Your task to perform on an android device: open a bookmark in the chrome app Image 0: 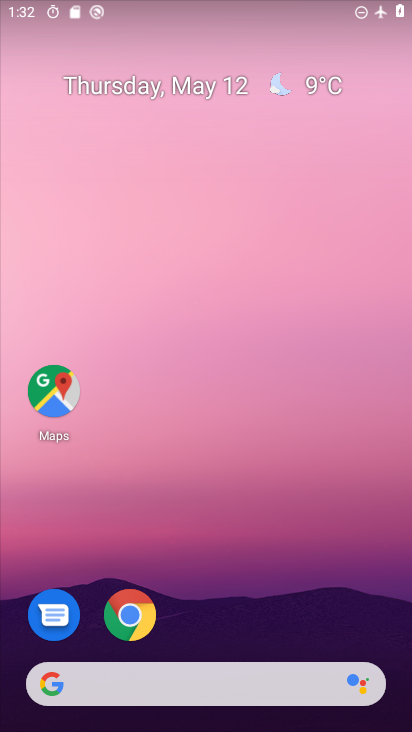
Step 0: click (138, 610)
Your task to perform on an android device: open a bookmark in the chrome app Image 1: 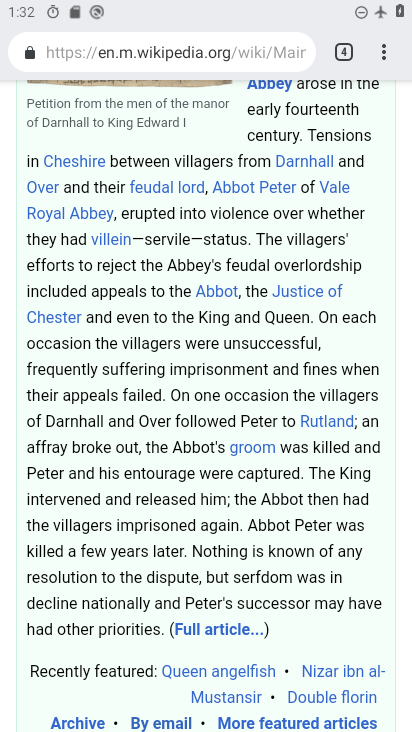
Step 1: drag from (376, 52) to (229, 200)
Your task to perform on an android device: open a bookmark in the chrome app Image 2: 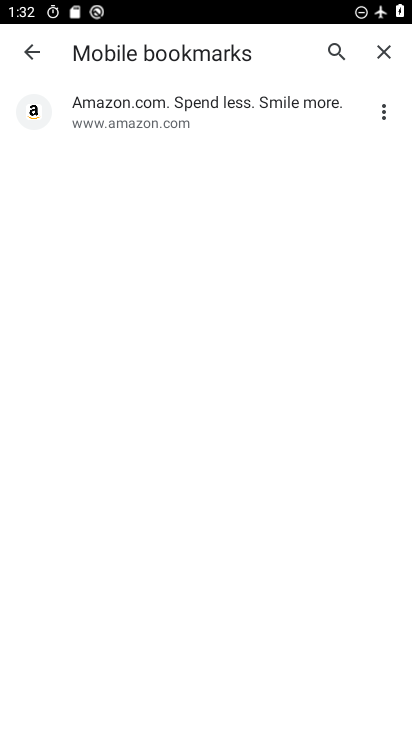
Step 2: click (271, 122)
Your task to perform on an android device: open a bookmark in the chrome app Image 3: 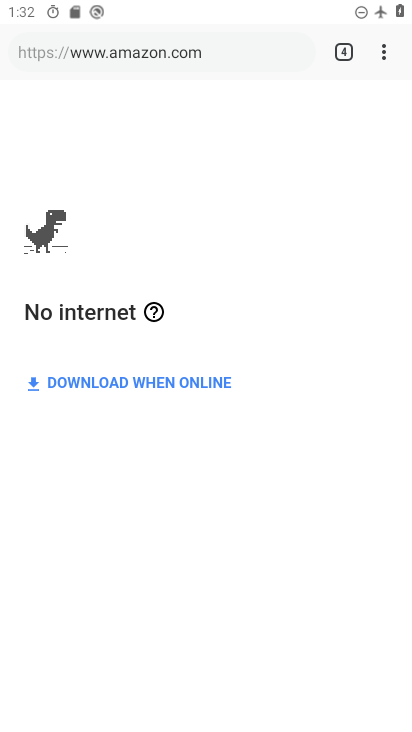
Step 3: click (111, 119)
Your task to perform on an android device: open a bookmark in the chrome app Image 4: 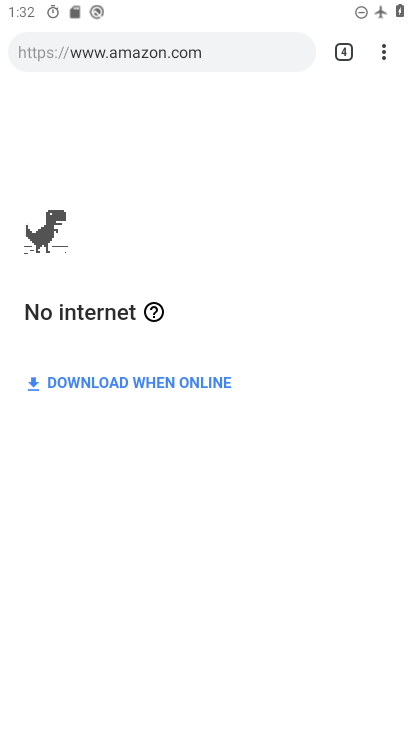
Step 4: task complete